Your task to perform on an android device: Go to battery settings Image 0: 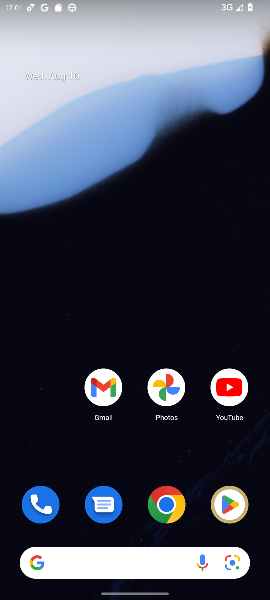
Step 0: press home button
Your task to perform on an android device: Go to battery settings Image 1: 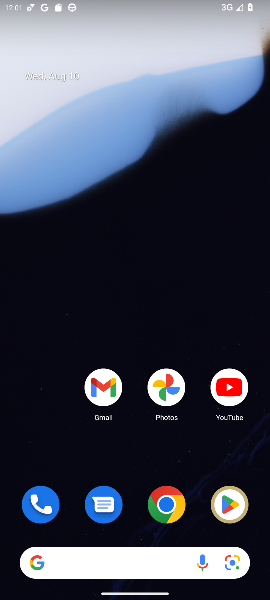
Step 1: drag from (137, 523) to (245, 85)
Your task to perform on an android device: Go to battery settings Image 2: 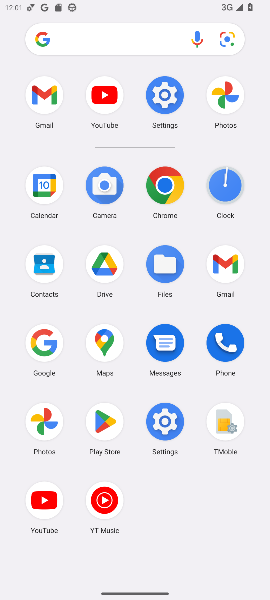
Step 2: click (165, 93)
Your task to perform on an android device: Go to battery settings Image 3: 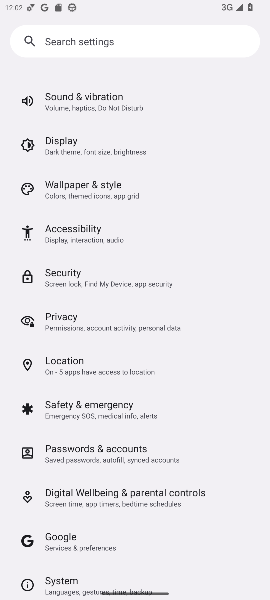
Step 3: drag from (148, 549) to (139, 262)
Your task to perform on an android device: Go to battery settings Image 4: 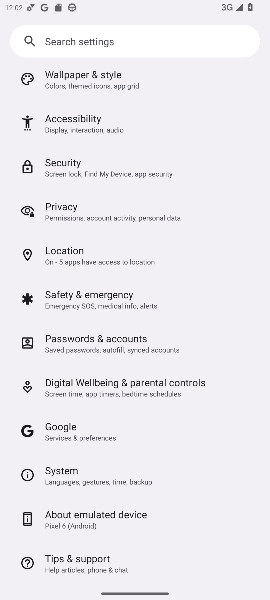
Step 4: drag from (172, 140) to (160, 598)
Your task to perform on an android device: Go to battery settings Image 5: 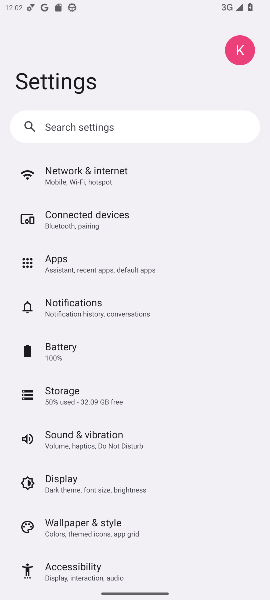
Step 5: click (63, 349)
Your task to perform on an android device: Go to battery settings Image 6: 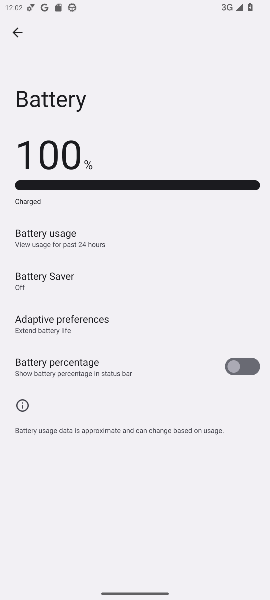
Step 6: task complete